Your task to perform on an android device: toggle improve location accuracy Image 0: 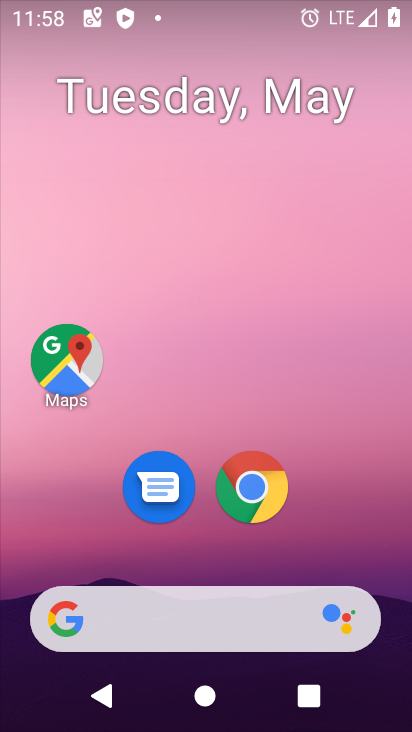
Step 0: drag from (203, 551) to (225, 183)
Your task to perform on an android device: toggle improve location accuracy Image 1: 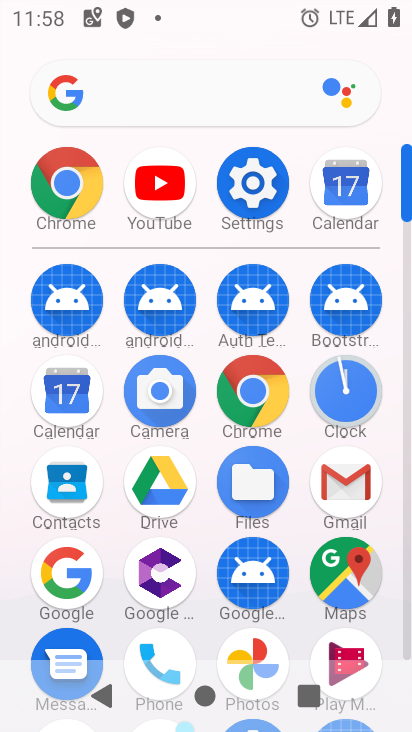
Step 1: click (259, 178)
Your task to perform on an android device: toggle improve location accuracy Image 2: 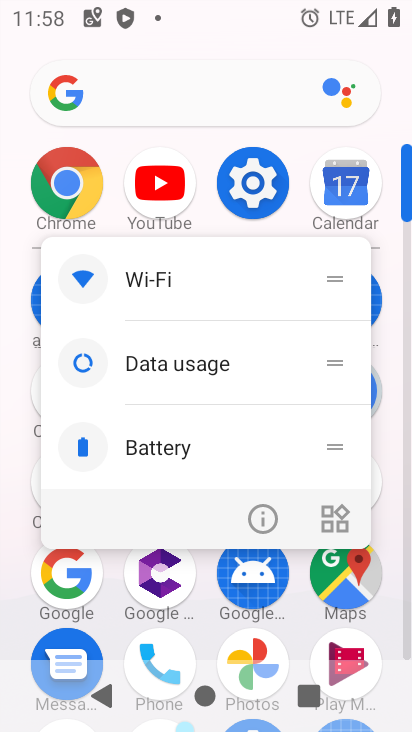
Step 2: click (258, 545)
Your task to perform on an android device: toggle improve location accuracy Image 3: 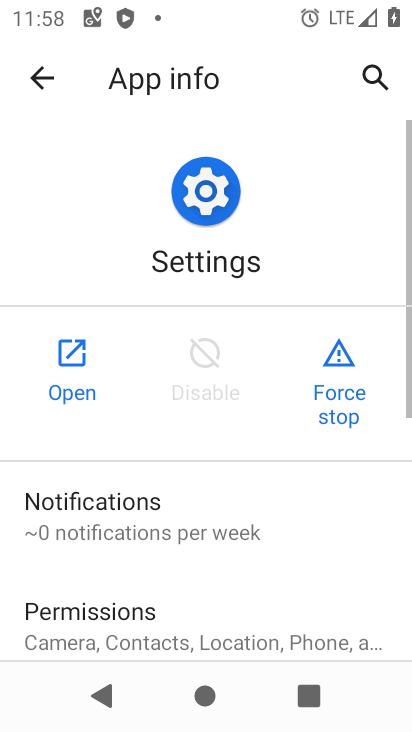
Step 3: click (83, 384)
Your task to perform on an android device: toggle improve location accuracy Image 4: 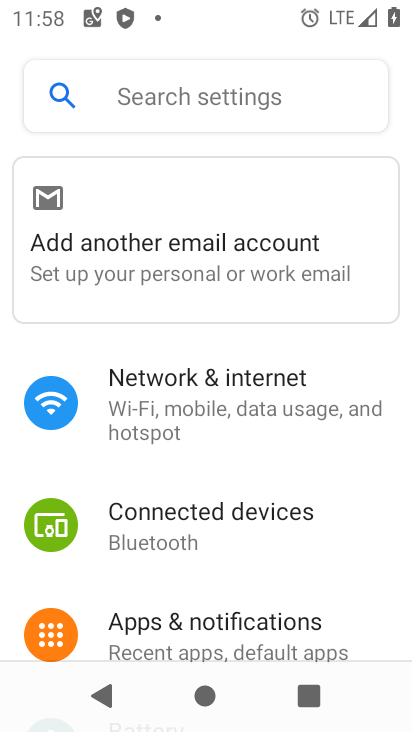
Step 4: drag from (210, 579) to (238, 50)
Your task to perform on an android device: toggle improve location accuracy Image 5: 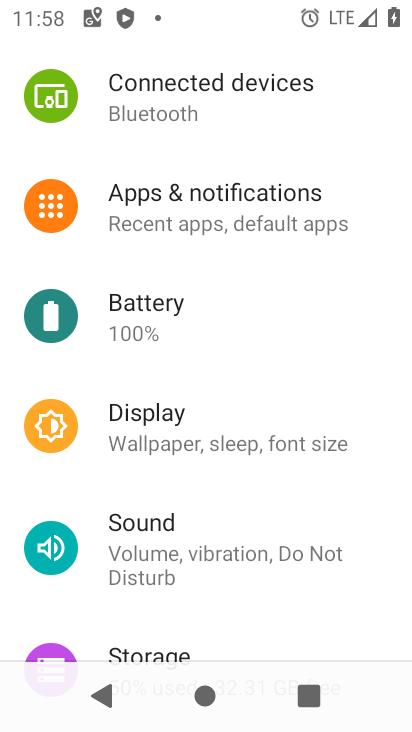
Step 5: drag from (218, 562) to (248, 123)
Your task to perform on an android device: toggle improve location accuracy Image 6: 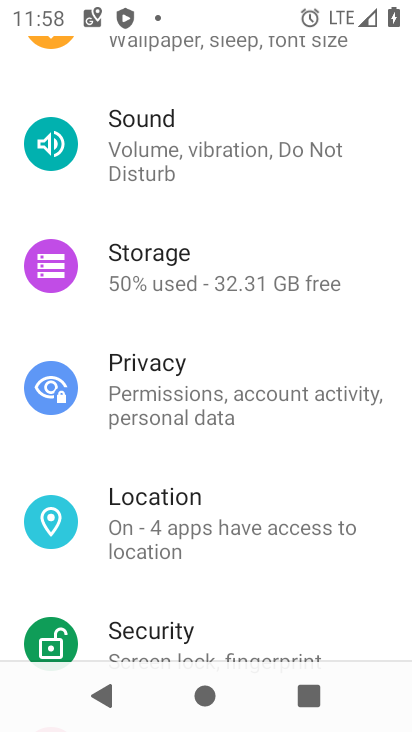
Step 6: drag from (239, 593) to (251, 212)
Your task to perform on an android device: toggle improve location accuracy Image 7: 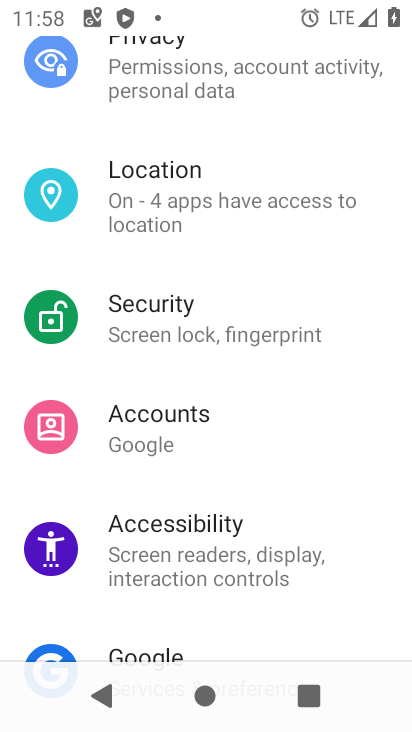
Step 7: click (181, 310)
Your task to perform on an android device: toggle improve location accuracy Image 8: 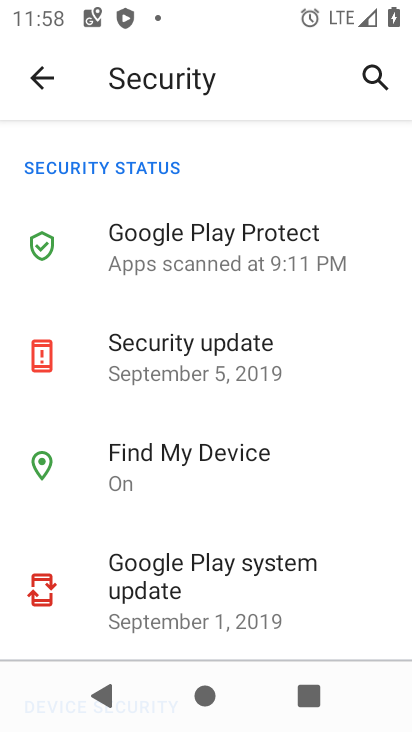
Step 8: drag from (257, 557) to (327, 167)
Your task to perform on an android device: toggle improve location accuracy Image 9: 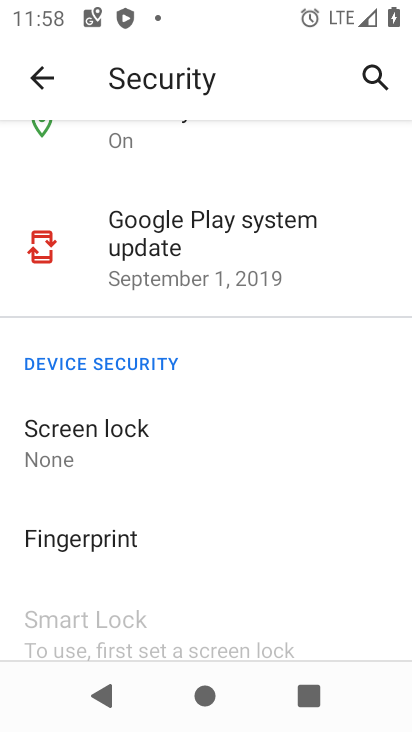
Step 9: drag from (251, 492) to (280, 157)
Your task to perform on an android device: toggle improve location accuracy Image 10: 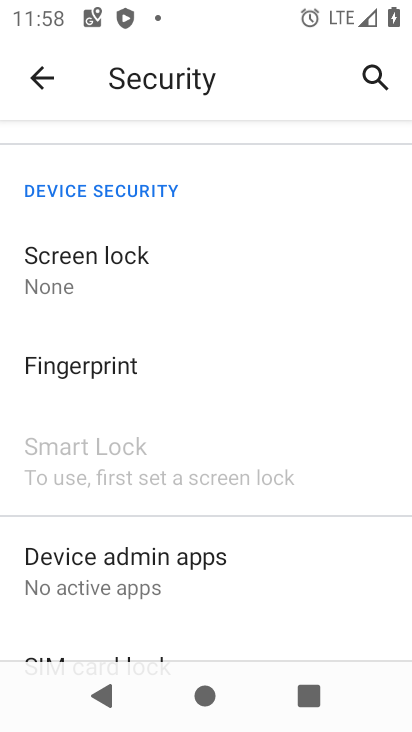
Step 10: drag from (200, 281) to (265, 583)
Your task to perform on an android device: toggle improve location accuracy Image 11: 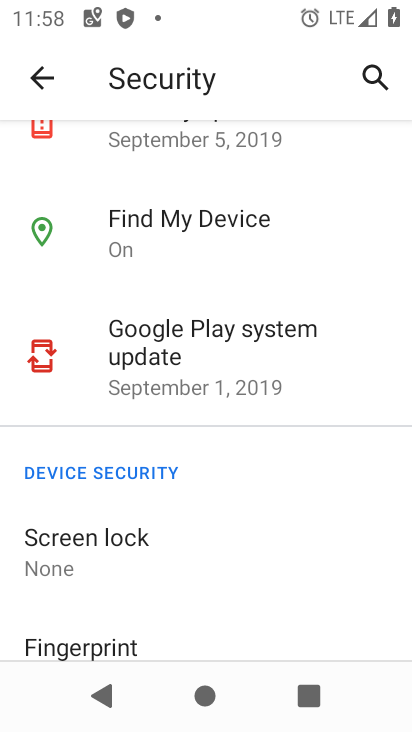
Step 11: drag from (239, 281) to (309, 654)
Your task to perform on an android device: toggle improve location accuracy Image 12: 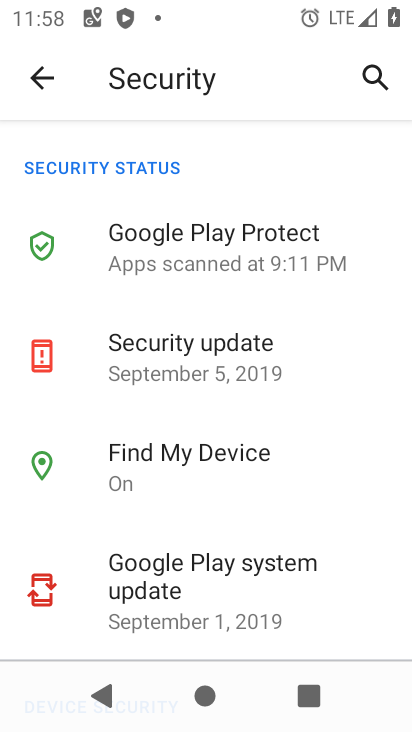
Step 12: drag from (200, 240) to (312, 615)
Your task to perform on an android device: toggle improve location accuracy Image 13: 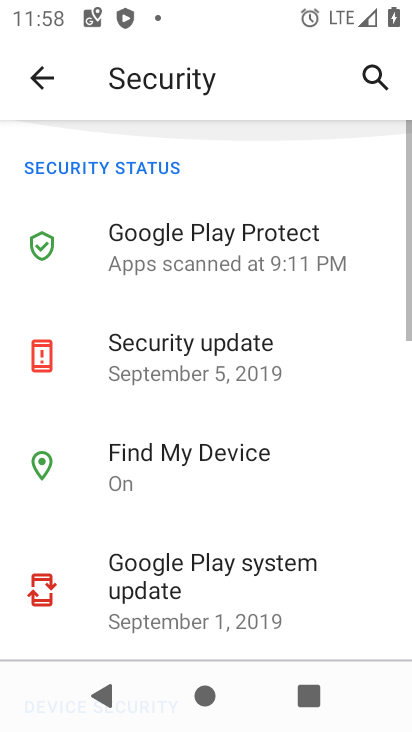
Step 13: drag from (270, 596) to (296, 64)
Your task to perform on an android device: toggle improve location accuracy Image 14: 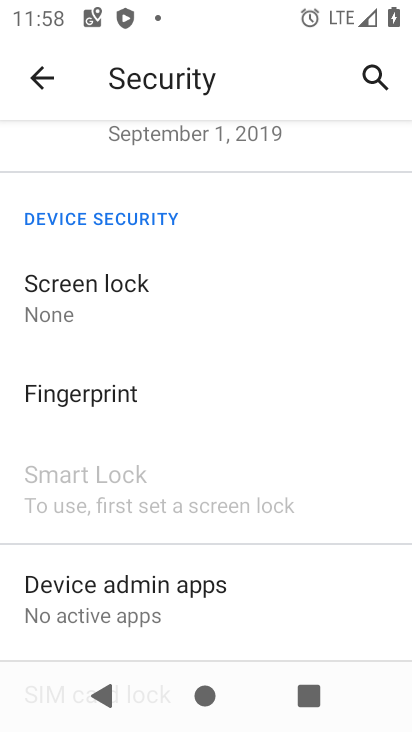
Step 14: drag from (246, 568) to (265, 252)
Your task to perform on an android device: toggle improve location accuracy Image 15: 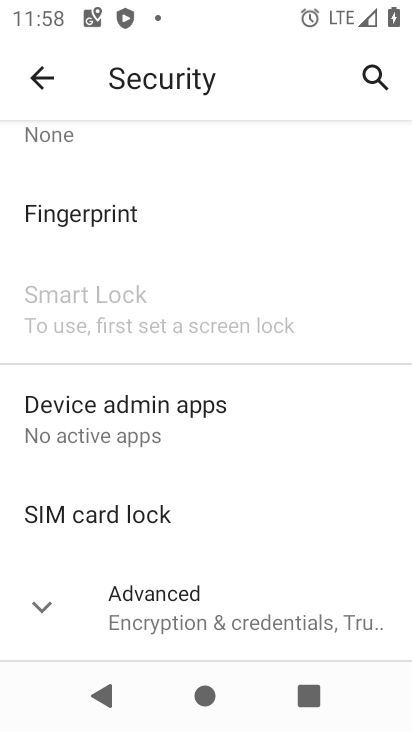
Step 15: click (53, 85)
Your task to perform on an android device: toggle improve location accuracy Image 16: 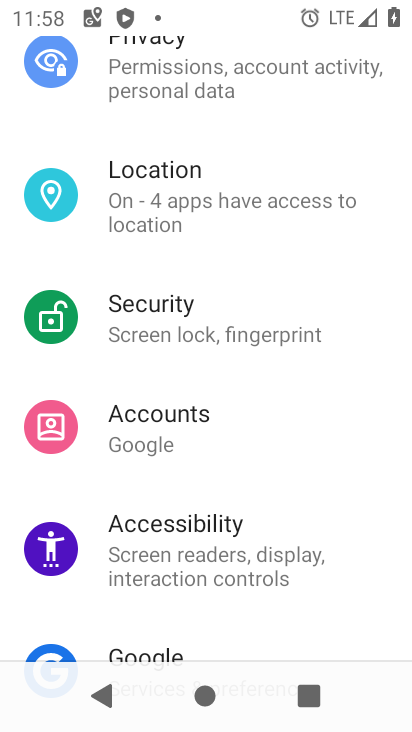
Step 16: click (167, 213)
Your task to perform on an android device: toggle improve location accuracy Image 17: 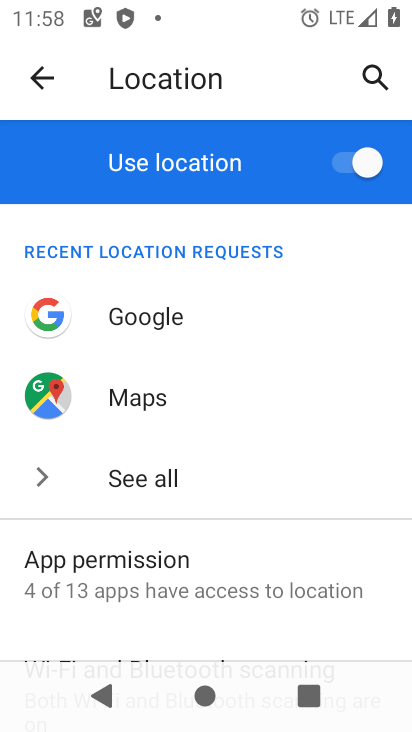
Step 17: drag from (175, 569) to (224, 214)
Your task to perform on an android device: toggle improve location accuracy Image 18: 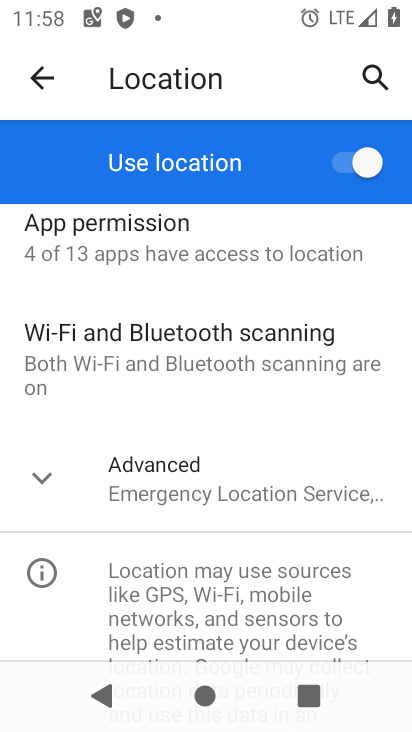
Step 18: click (194, 485)
Your task to perform on an android device: toggle improve location accuracy Image 19: 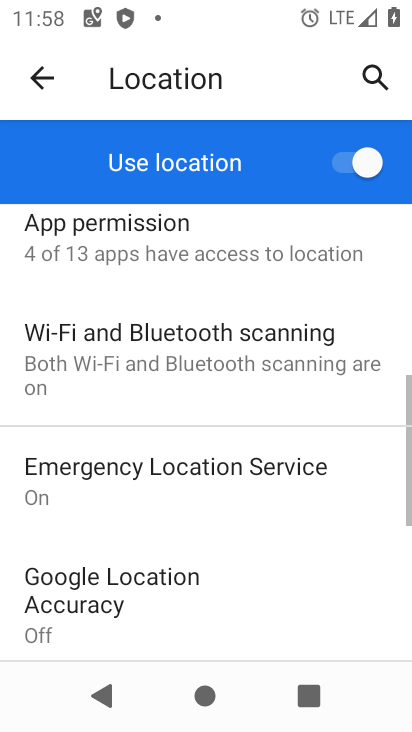
Step 19: drag from (241, 537) to (270, 213)
Your task to perform on an android device: toggle improve location accuracy Image 20: 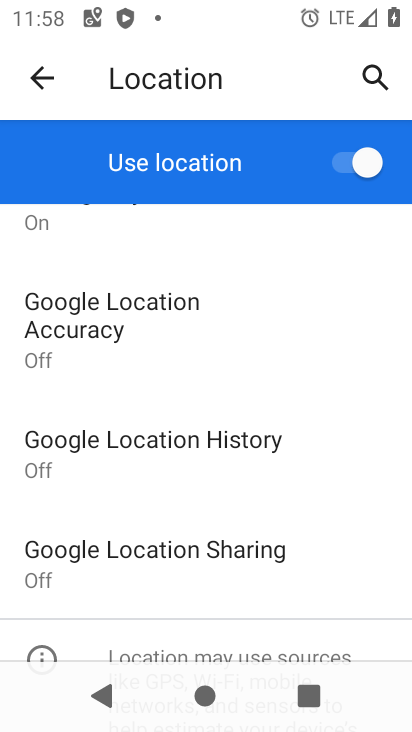
Step 20: click (125, 356)
Your task to perform on an android device: toggle improve location accuracy Image 21: 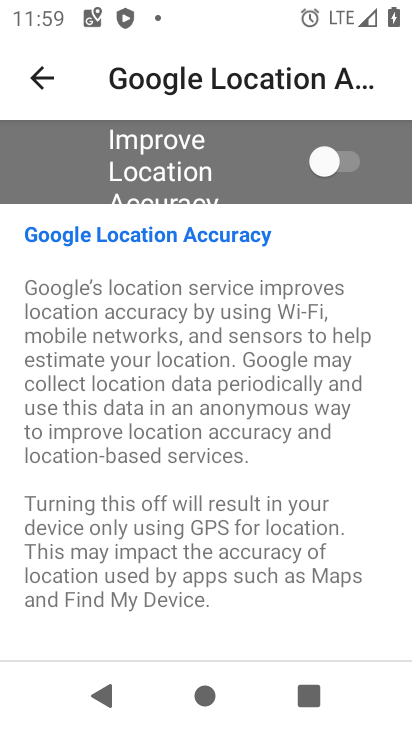
Step 21: click (321, 164)
Your task to perform on an android device: toggle improve location accuracy Image 22: 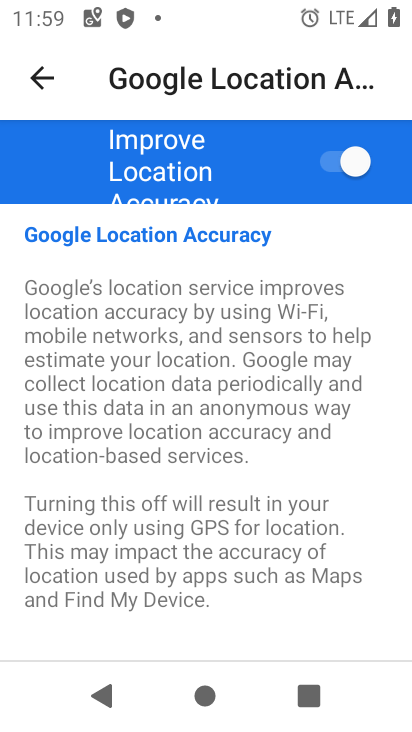
Step 22: task complete